Your task to perform on an android device: turn on bluetooth scan Image 0: 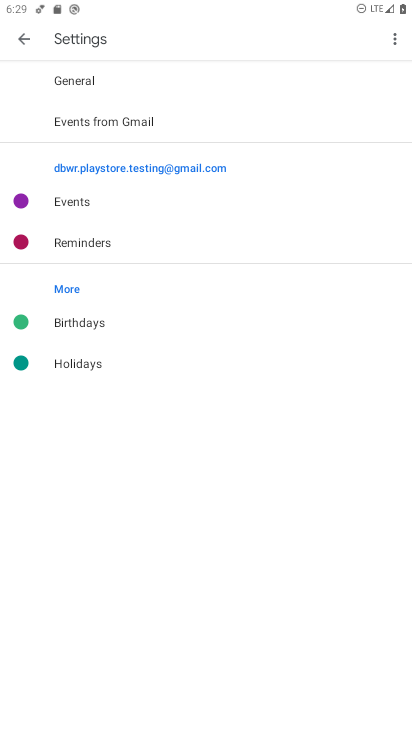
Step 0: press home button
Your task to perform on an android device: turn on bluetooth scan Image 1: 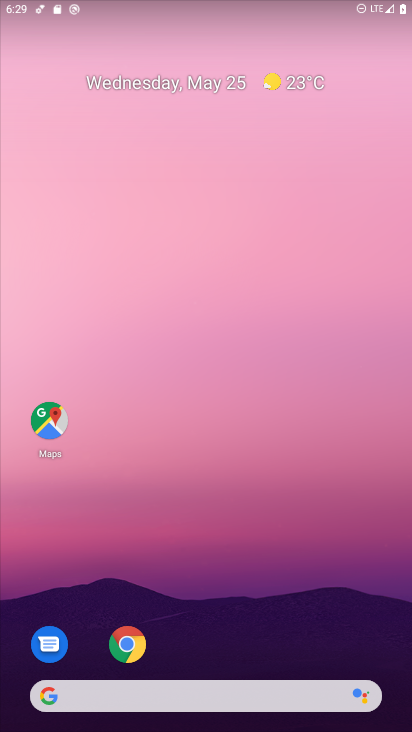
Step 1: drag from (365, 633) to (285, 3)
Your task to perform on an android device: turn on bluetooth scan Image 2: 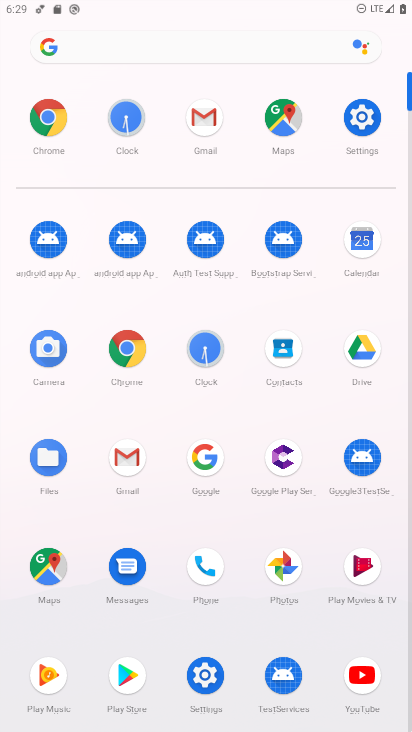
Step 2: click (349, 135)
Your task to perform on an android device: turn on bluetooth scan Image 3: 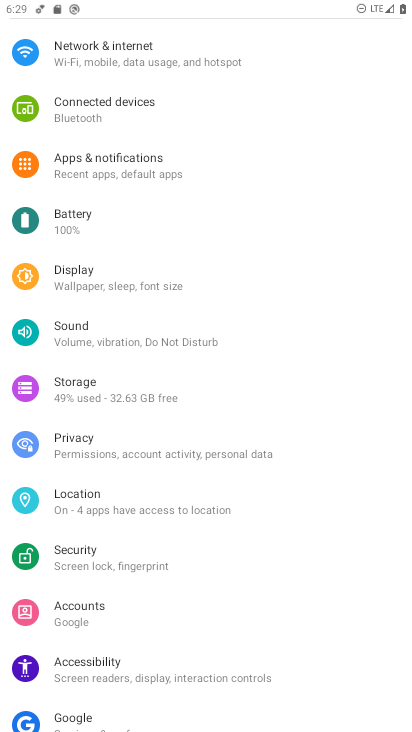
Step 3: click (113, 513)
Your task to perform on an android device: turn on bluetooth scan Image 4: 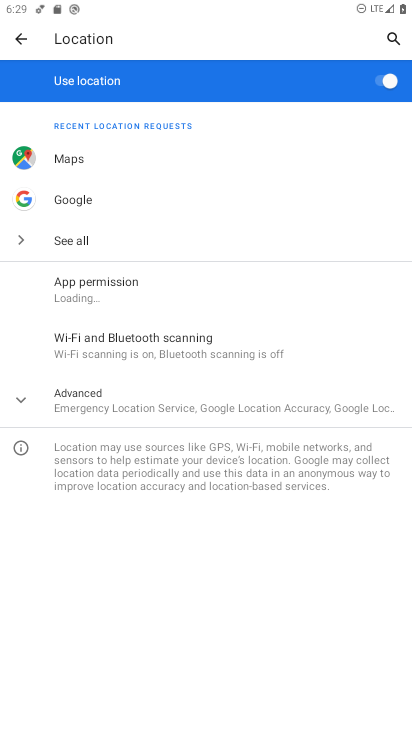
Step 4: click (96, 335)
Your task to perform on an android device: turn on bluetooth scan Image 5: 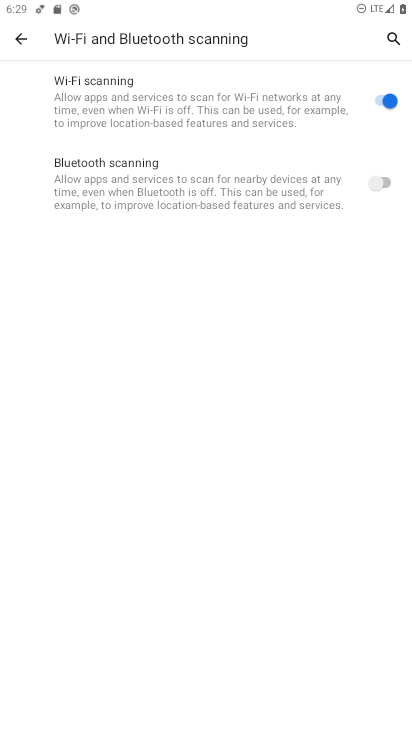
Step 5: click (323, 178)
Your task to perform on an android device: turn on bluetooth scan Image 6: 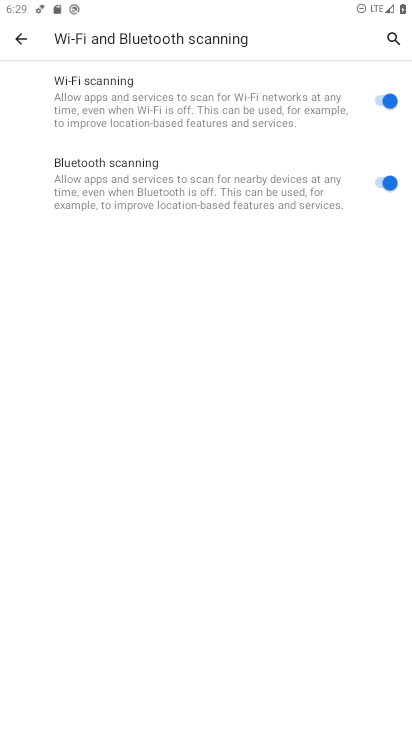
Step 6: task complete